Your task to perform on an android device: Open Chrome and go to the settings page Image 0: 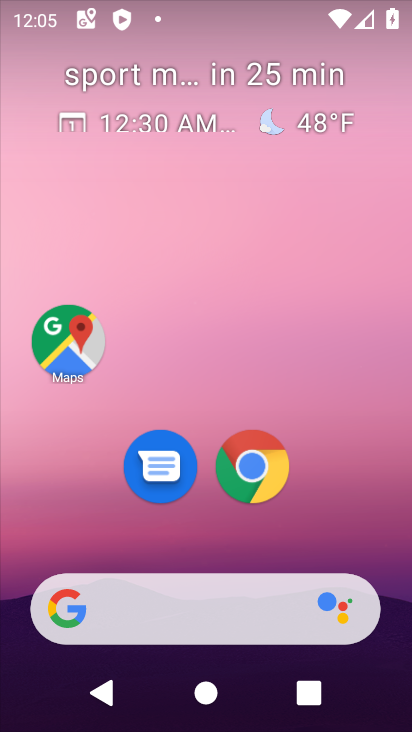
Step 0: click (254, 464)
Your task to perform on an android device: Open Chrome and go to the settings page Image 1: 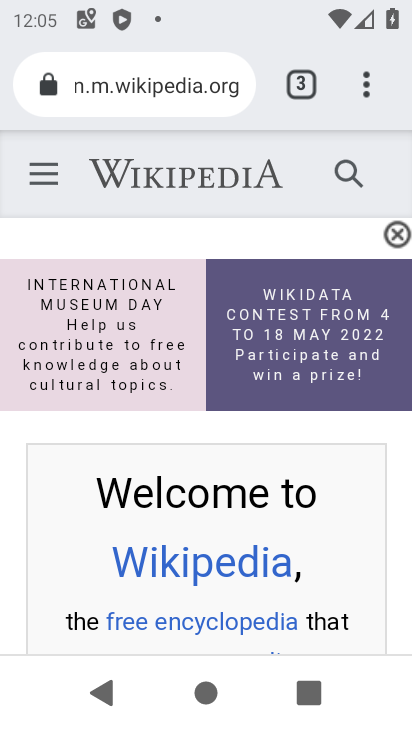
Step 1: click (363, 90)
Your task to perform on an android device: Open Chrome and go to the settings page Image 2: 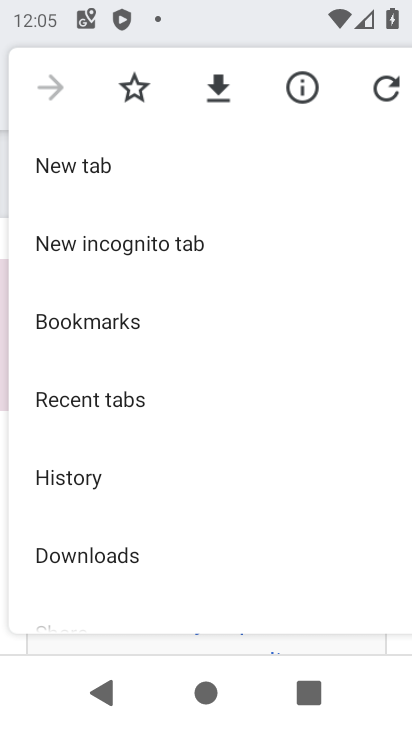
Step 2: drag from (151, 559) to (197, 152)
Your task to perform on an android device: Open Chrome and go to the settings page Image 3: 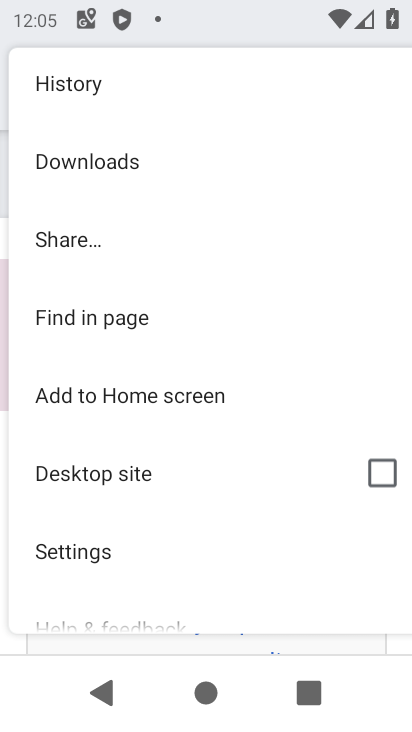
Step 3: click (97, 545)
Your task to perform on an android device: Open Chrome and go to the settings page Image 4: 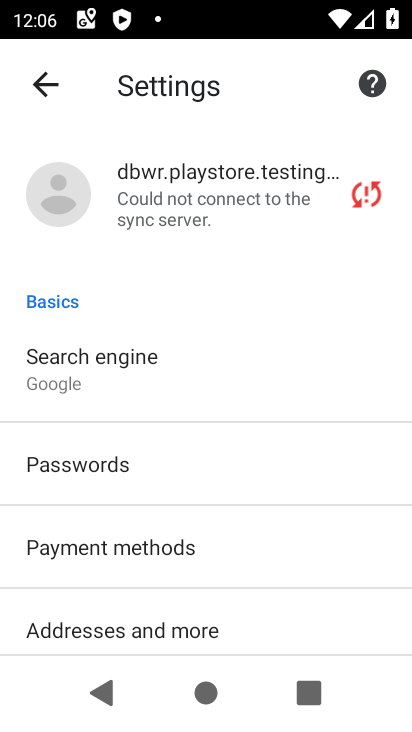
Step 4: task complete